Your task to perform on an android device: turn on wifi Image 0: 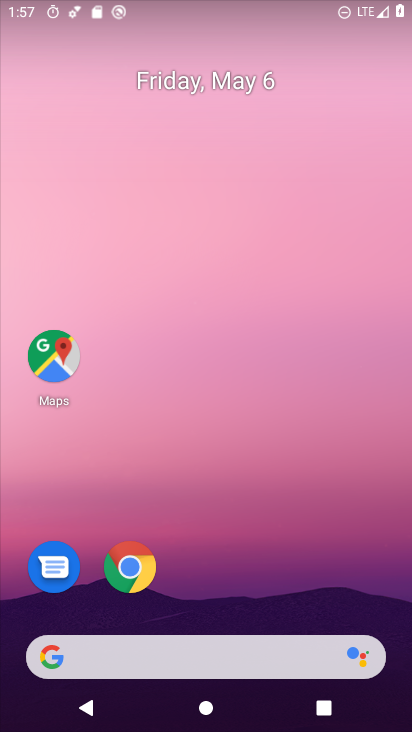
Step 0: drag from (331, 684) to (277, 175)
Your task to perform on an android device: turn on wifi Image 1: 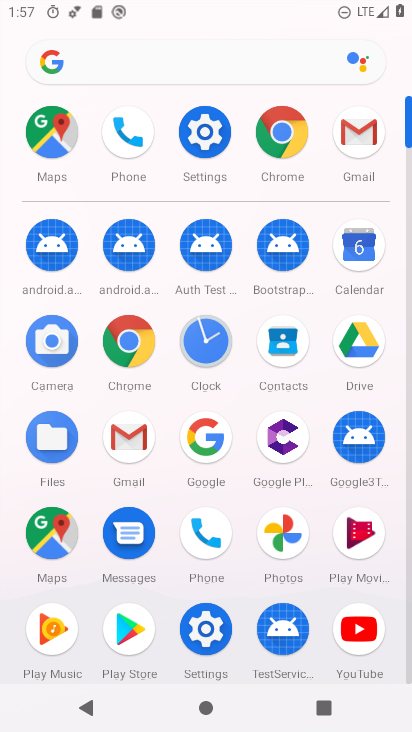
Step 1: click (213, 139)
Your task to perform on an android device: turn on wifi Image 2: 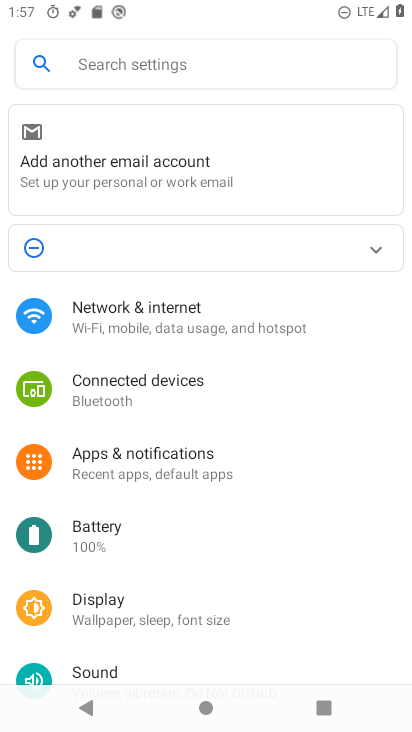
Step 2: click (139, 313)
Your task to perform on an android device: turn on wifi Image 3: 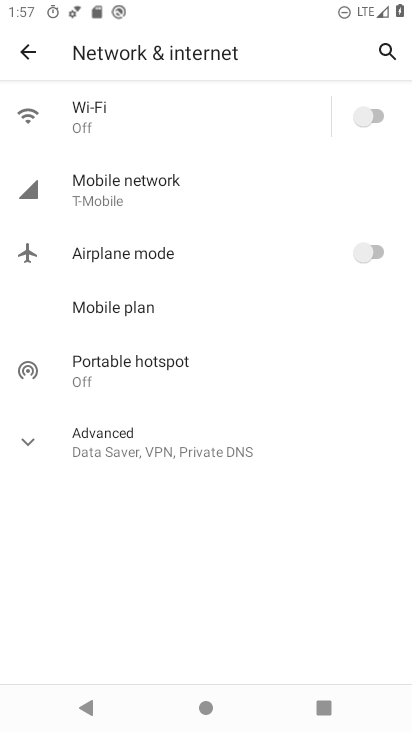
Step 3: click (125, 128)
Your task to perform on an android device: turn on wifi Image 4: 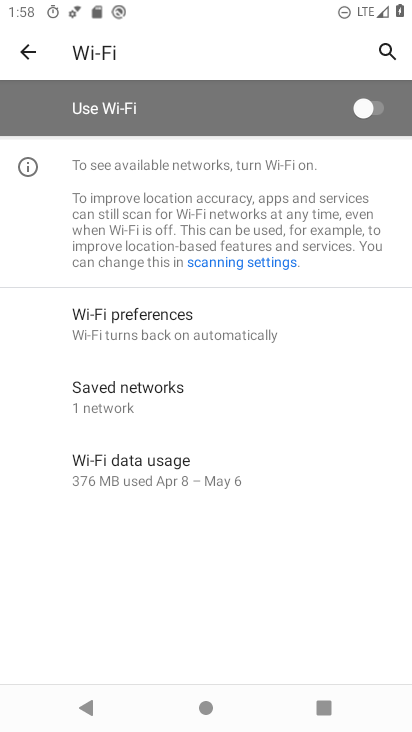
Step 4: click (363, 117)
Your task to perform on an android device: turn on wifi Image 5: 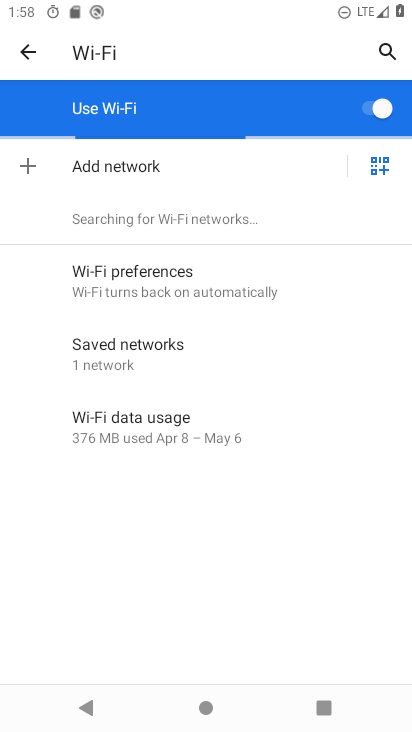
Step 5: task complete